Your task to perform on an android device: Open the calendar and show me this week's events? Image 0: 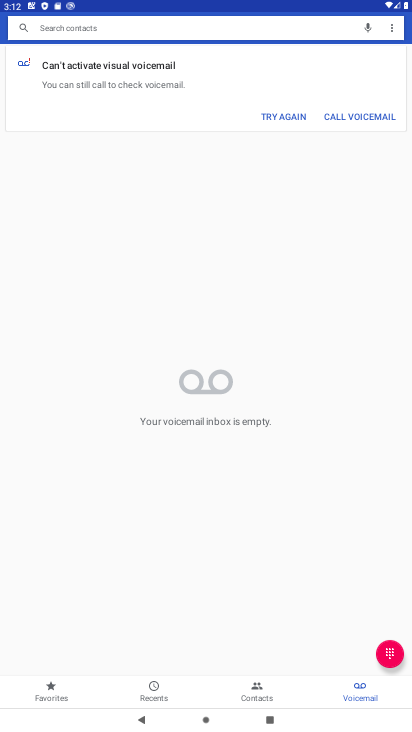
Step 0: task complete